Your task to perform on an android device: refresh tabs in the chrome app Image 0: 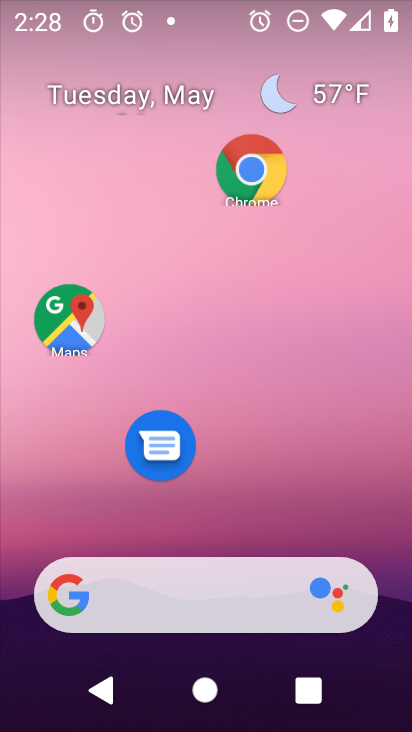
Step 0: click (254, 164)
Your task to perform on an android device: refresh tabs in the chrome app Image 1: 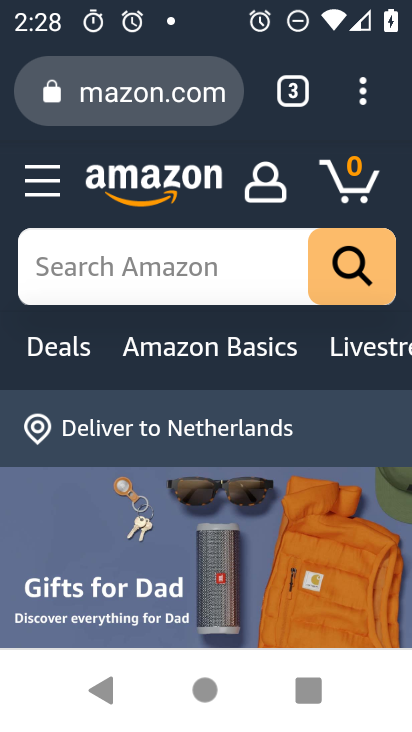
Step 1: click (367, 103)
Your task to perform on an android device: refresh tabs in the chrome app Image 2: 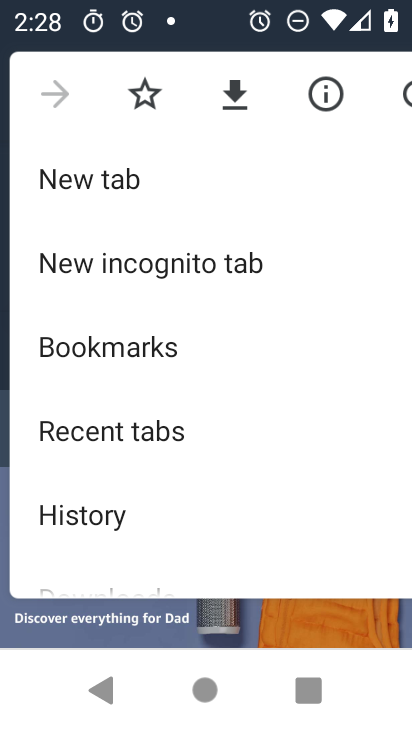
Step 2: click (403, 90)
Your task to perform on an android device: refresh tabs in the chrome app Image 3: 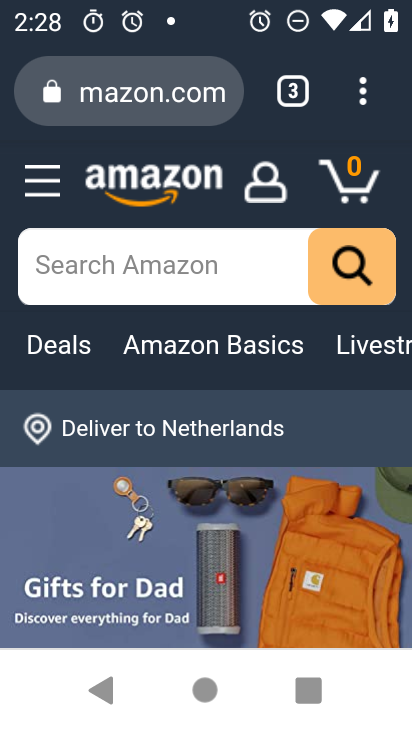
Step 3: task complete